Your task to perform on an android device: Go to wifi settings Image 0: 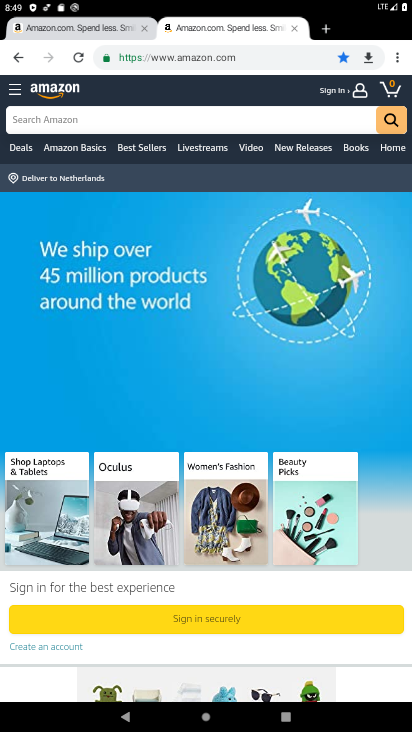
Step 0: press home button
Your task to perform on an android device: Go to wifi settings Image 1: 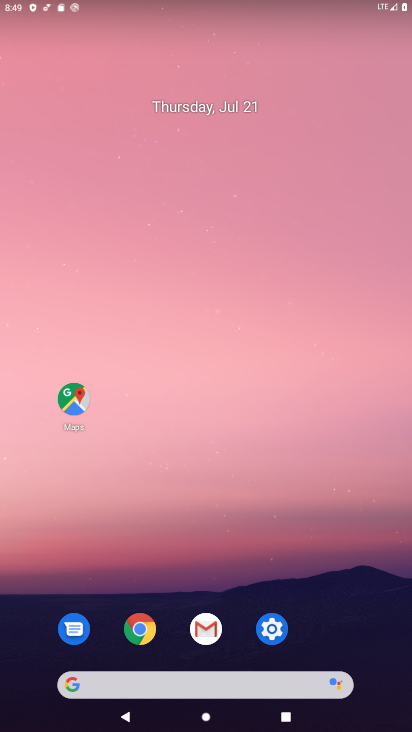
Step 1: click (269, 632)
Your task to perform on an android device: Go to wifi settings Image 2: 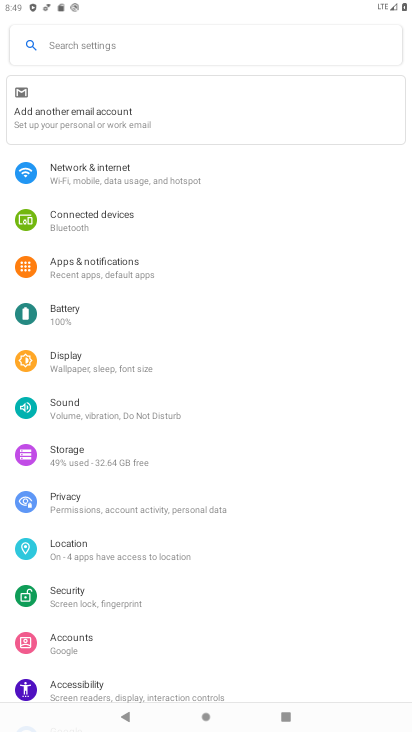
Step 2: click (80, 175)
Your task to perform on an android device: Go to wifi settings Image 3: 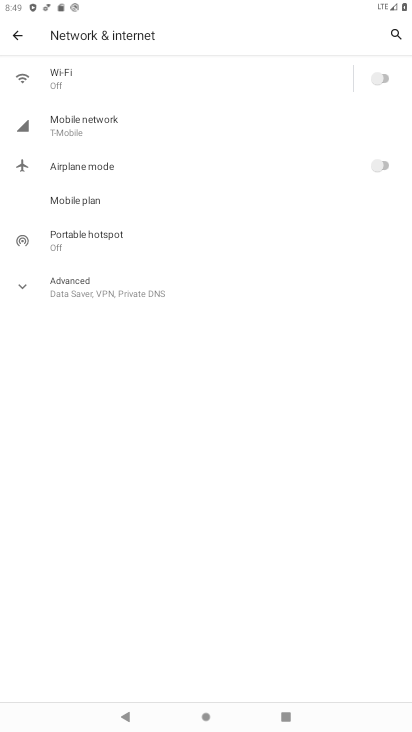
Step 3: click (94, 78)
Your task to perform on an android device: Go to wifi settings Image 4: 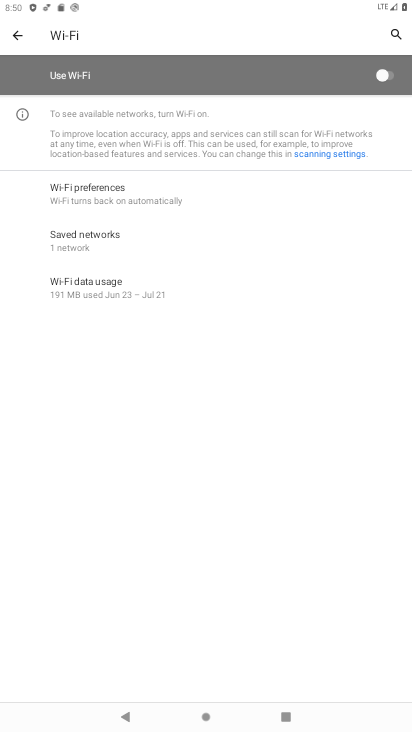
Step 4: task complete